Your task to perform on an android device: Open location settings Image 0: 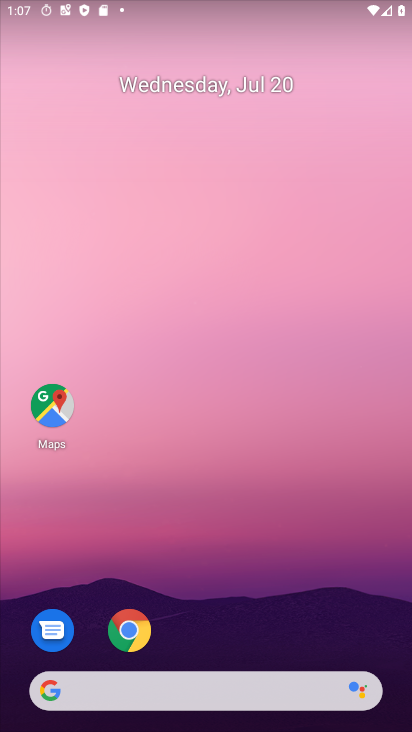
Step 0: drag from (264, 622) to (264, 221)
Your task to perform on an android device: Open location settings Image 1: 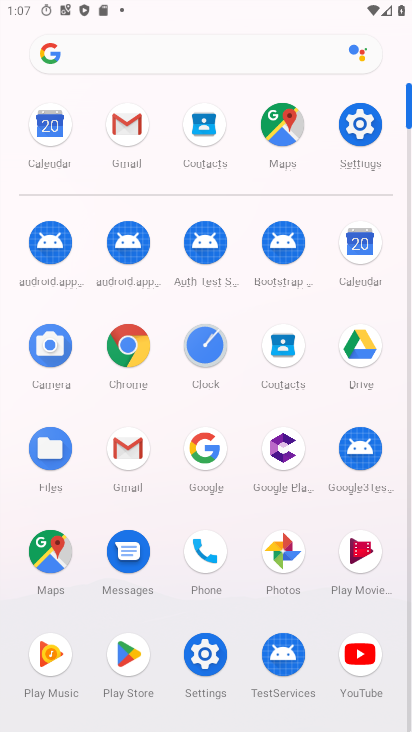
Step 1: click (374, 113)
Your task to perform on an android device: Open location settings Image 2: 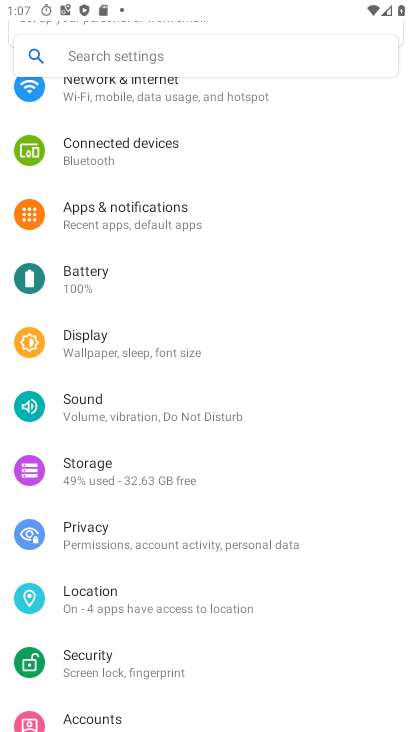
Step 2: click (108, 598)
Your task to perform on an android device: Open location settings Image 3: 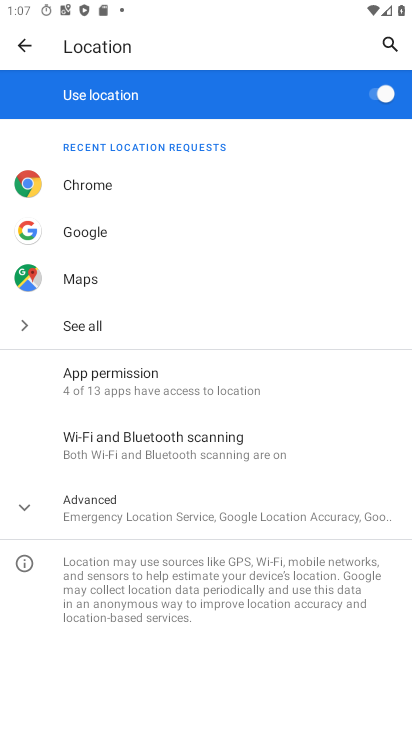
Step 3: task complete